Your task to perform on an android device: Open my contact list Image 0: 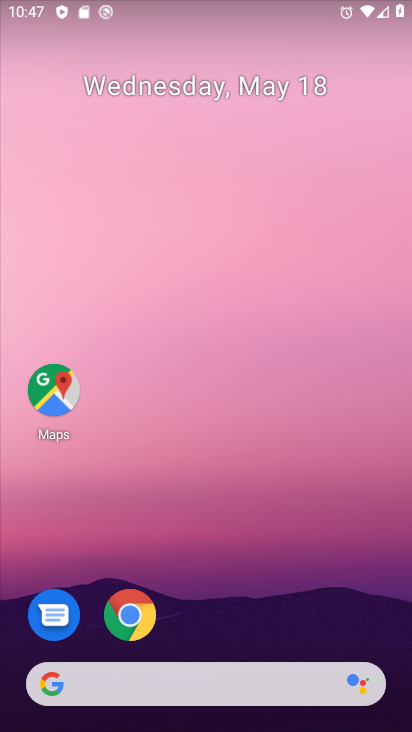
Step 0: drag from (232, 632) to (232, 233)
Your task to perform on an android device: Open my contact list Image 1: 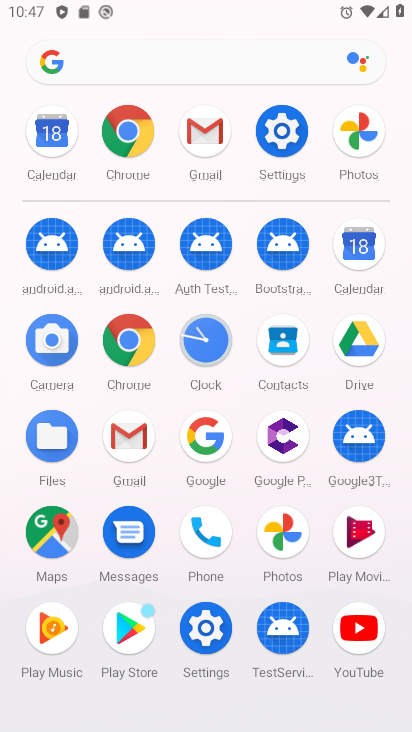
Step 1: click (287, 340)
Your task to perform on an android device: Open my contact list Image 2: 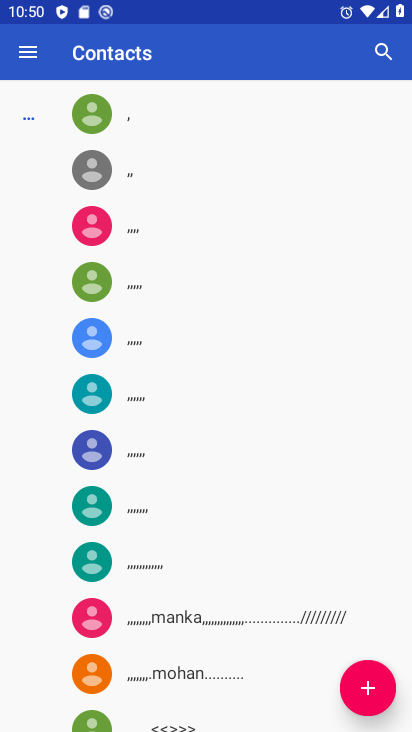
Step 2: task complete